Your task to perform on an android device: Open sound settings Image 0: 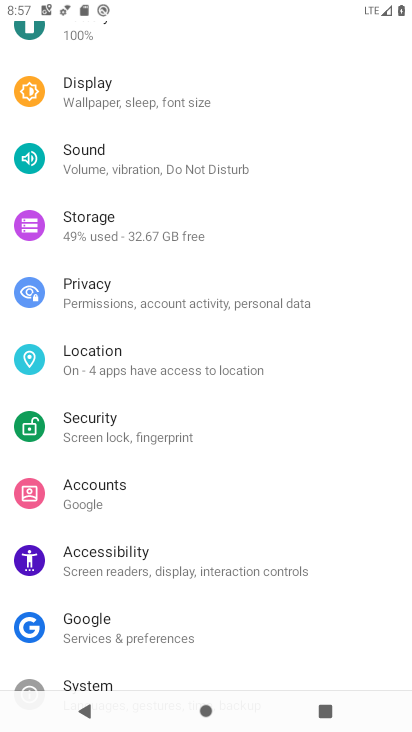
Step 0: press home button
Your task to perform on an android device: Open sound settings Image 1: 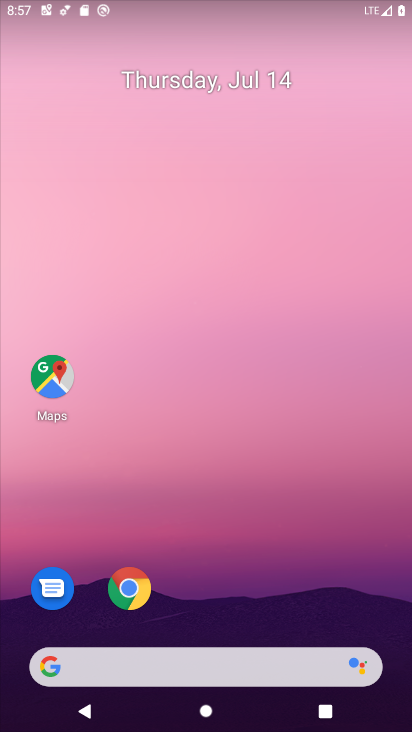
Step 1: drag from (230, 632) to (273, 80)
Your task to perform on an android device: Open sound settings Image 2: 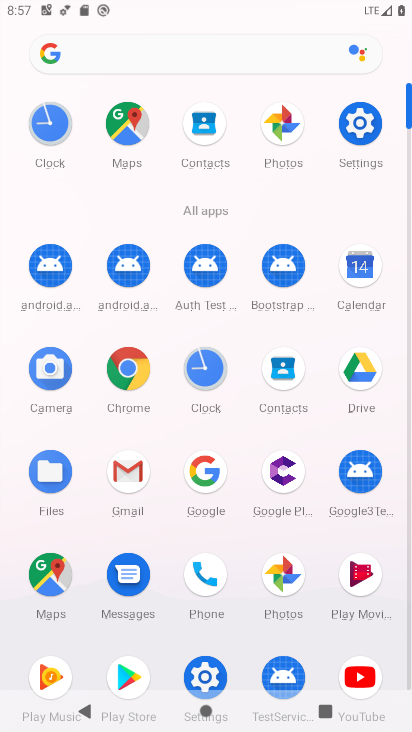
Step 2: click (199, 670)
Your task to perform on an android device: Open sound settings Image 3: 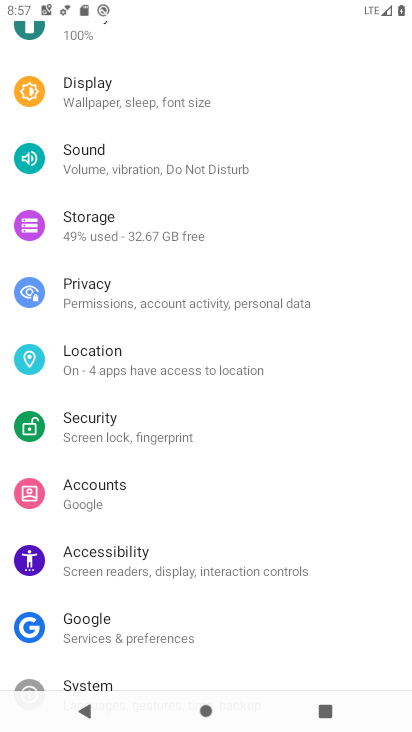
Step 3: click (104, 158)
Your task to perform on an android device: Open sound settings Image 4: 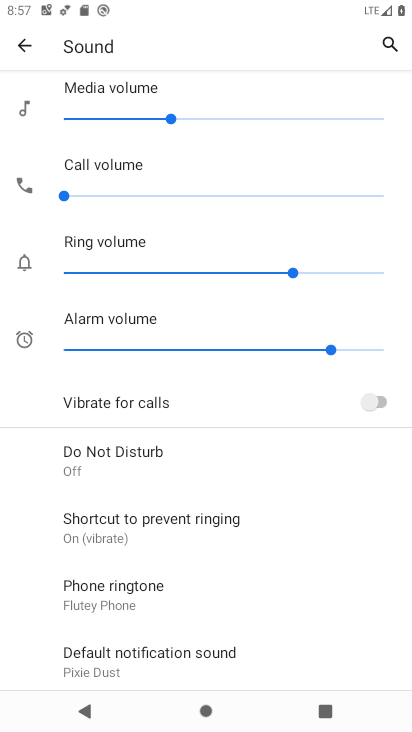
Step 4: task complete